Your task to perform on an android device: delete a single message in the gmail app Image 0: 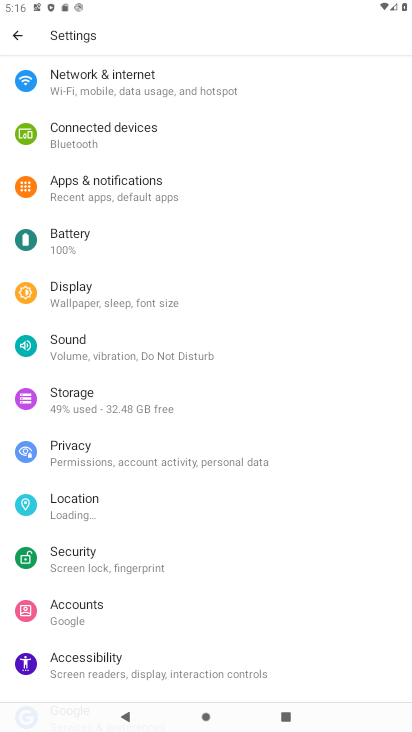
Step 0: press home button
Your task to perform on an android device: delete a single message in the gmail app Image 1: 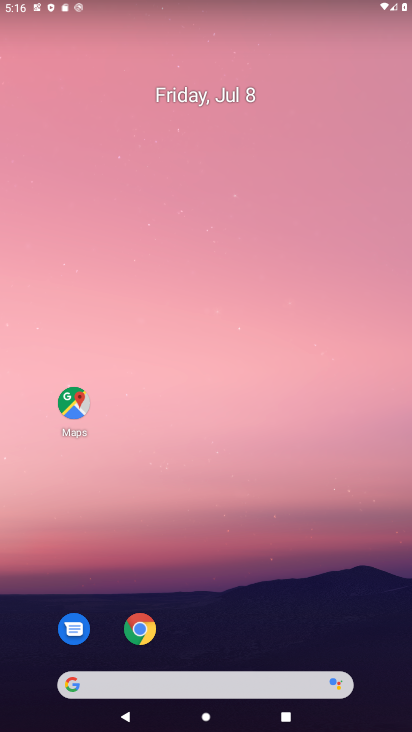
Step 1: drag from (252, 629) to (265, 147)
Your task to perform on an android device: delete a single message in the gmail app Image 2: 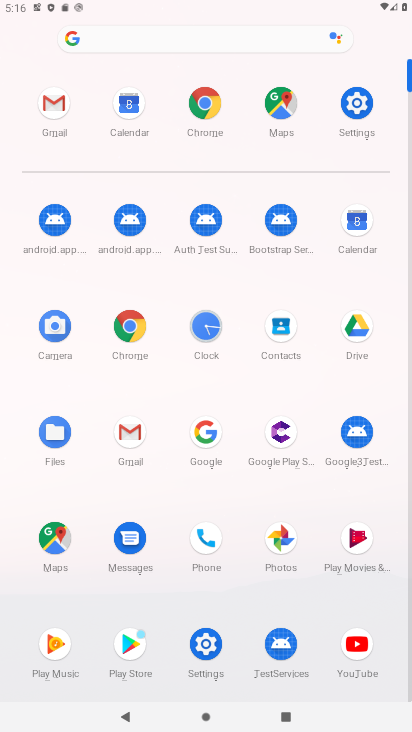
Step 2: click (53, 109)
Your task to perform on an android device: delete a single message in the gmail app Image 3: 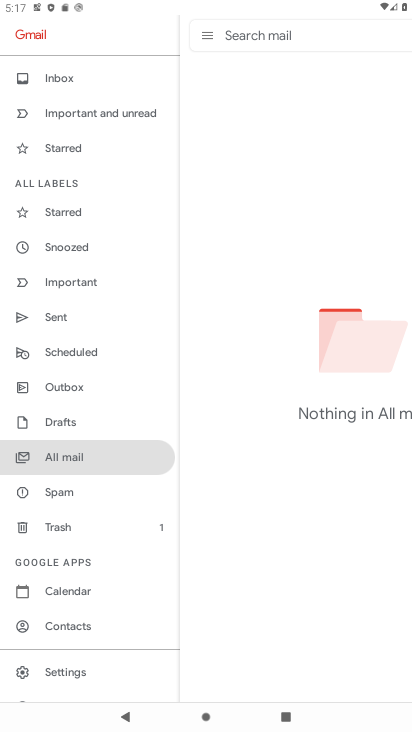
Step 3: click (108, 450)
Your task to perform on an android device: delete a single message in the gmail app Image 4: 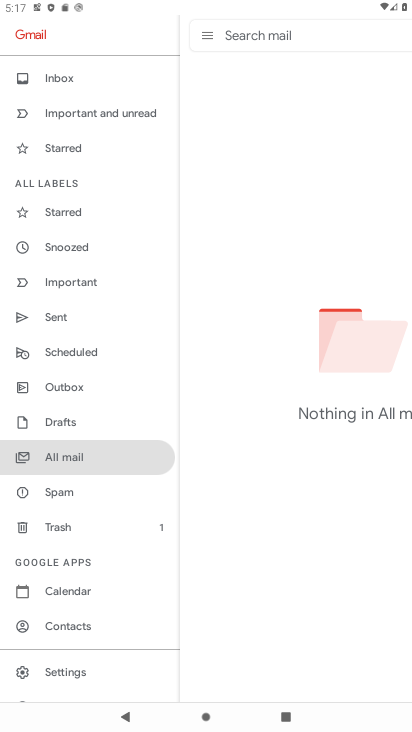
Step 4: task complete